Your task to perform on an android device: Open the map Image 0: 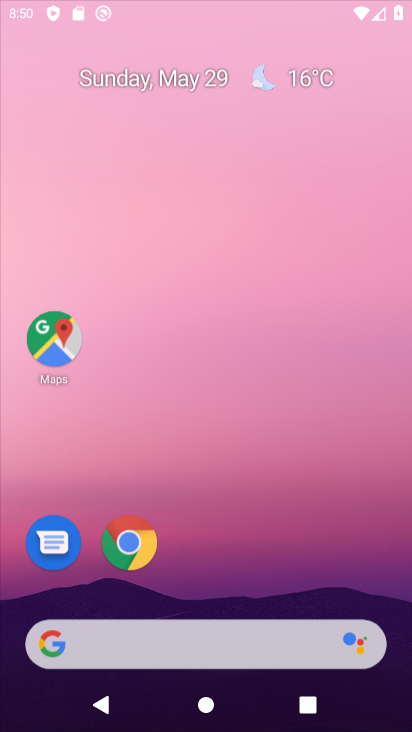
Step 0: press home button
Your task to perform on an android device: Open the map Image 1: 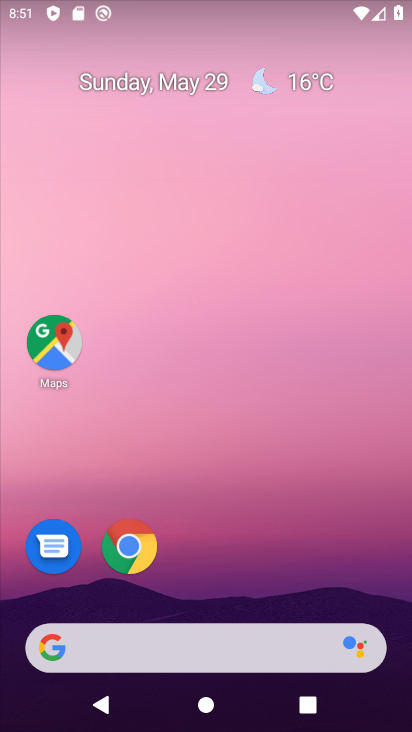
Step 1: drag from (311, 575) to (308, 94)
Your task to perform on an android device: Open the map Image 2: 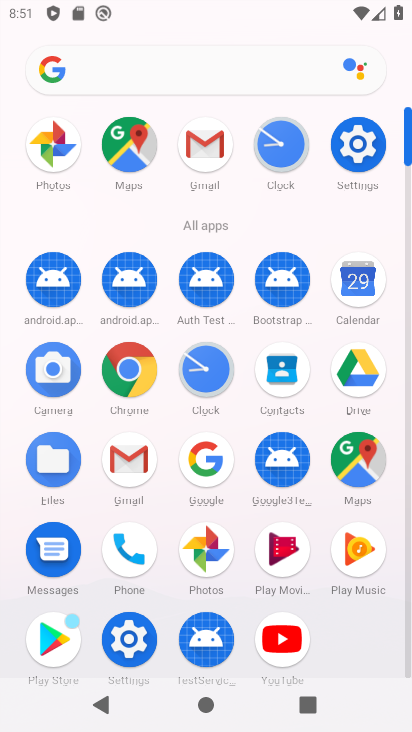
Step 2: click (355, 453)
Your task to perform on an android device: Open the map Image 3: 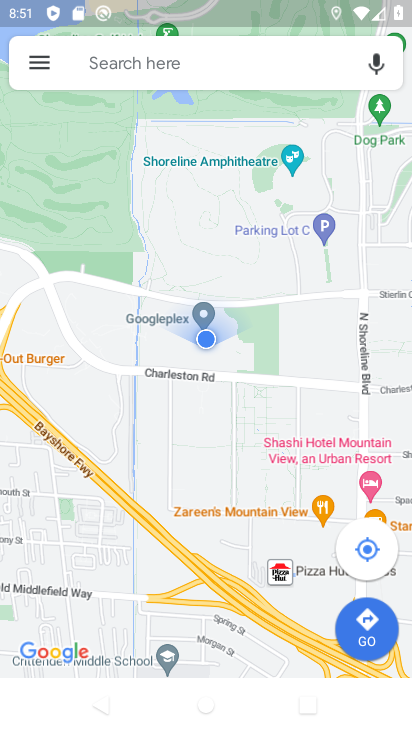
Step 3: task complete